Your task to perform on an android device: turn off improve location accuracy Image 0: 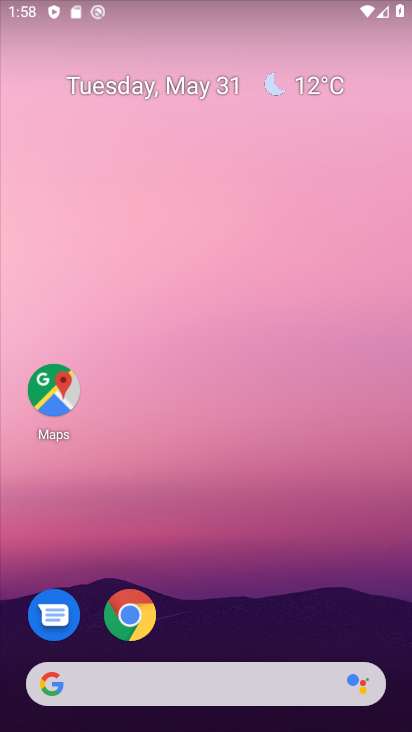
Step 0: click (322, 0)
Your task to perform on an android device: turn off improve location accuracy Image 1: 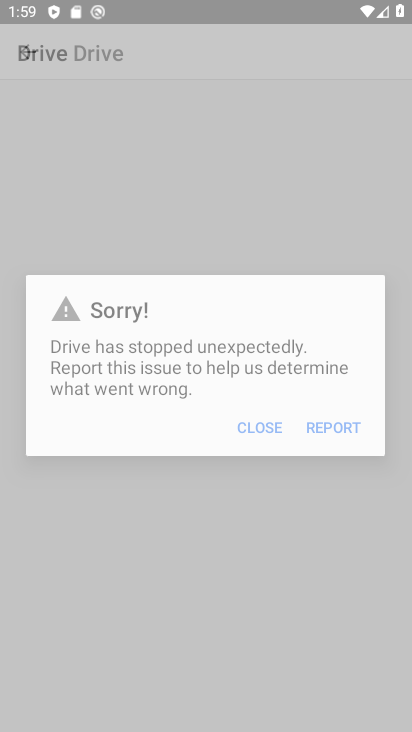
Step 1: press home button
Your task to perform on an android device: turn off improve location accuracy Image 2: 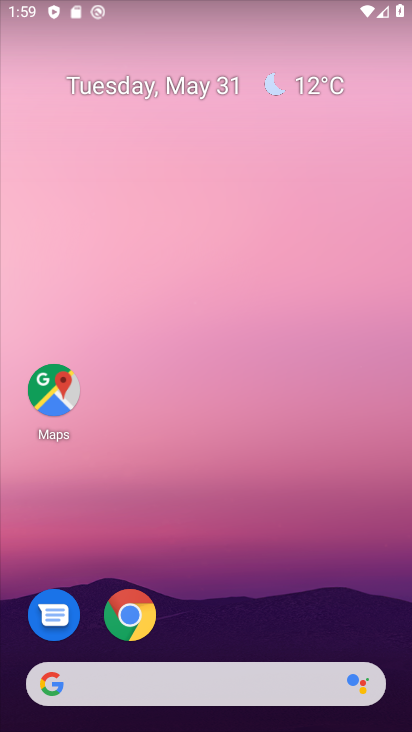
Step 2: drag from (229, 666) to (318, 85)
Your task to perform on an android device: turn off improve location accuracy Image 3: 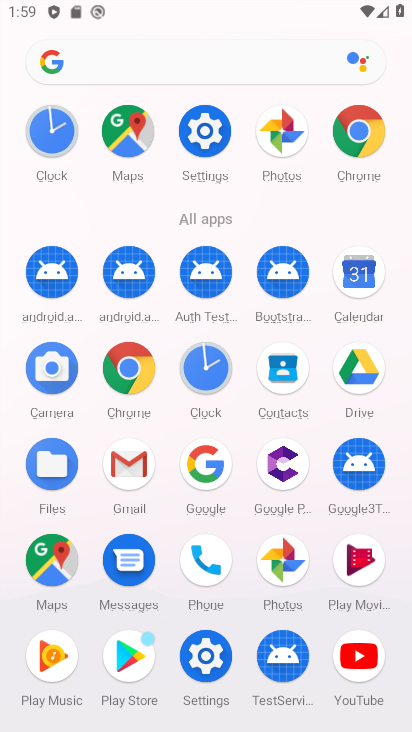
Step 3: click (211, 670)
Your task to perform on an android device: turn off improve location accuracy Image 4: 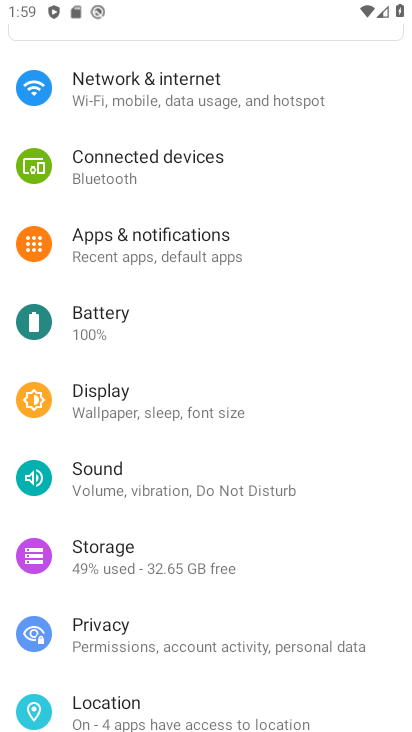
Step 4: drag from (165, 564) to (186, 320)
Your task to perform on an android device: turn off improve location accuracy Image 5: 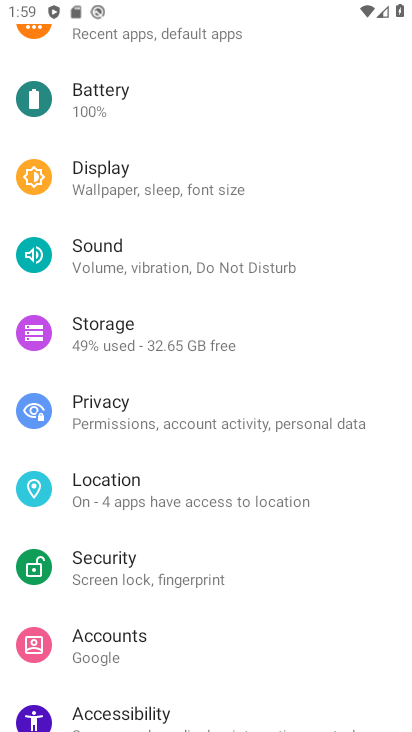
Step 5: click (179, 504)
Your task to perform on an android device: turn off improve location accuracy Image 6: 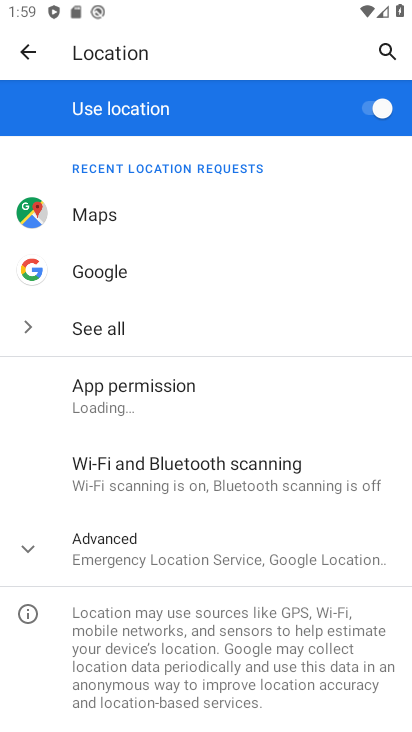
Step 6: click (121, 523)
Your task to perform on an android device: turn off improve location accuracy Image 7: 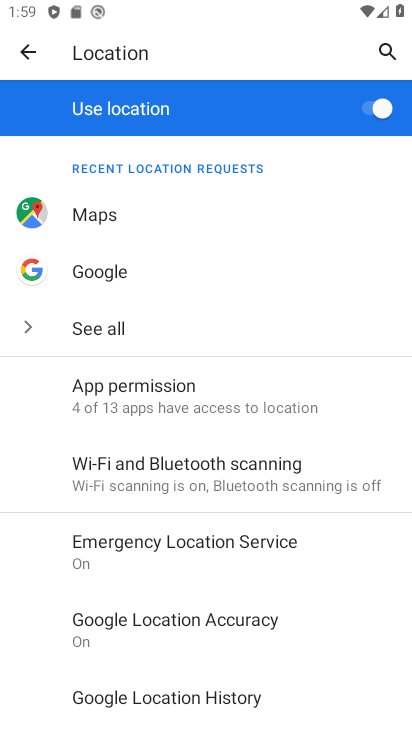
Step 7: click (212, 635)
Your task to perform on an android device: turn off improve location accuracy Image 8: 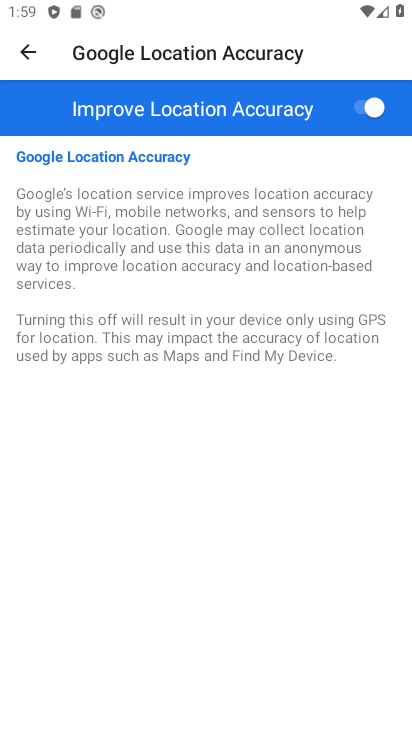
Step 8: click (366, 98)
Your task to perform on an android device: turn off improve location accuracy Image 9: 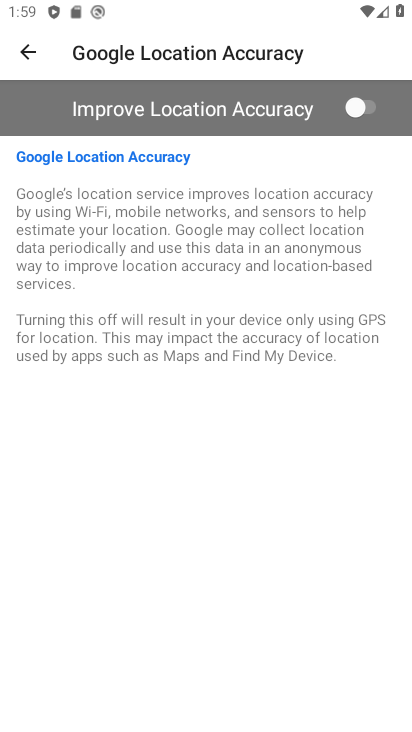
Step 9: task complete